Your task to perform on an android device: turn on the 12-hour format for clock Image 0: 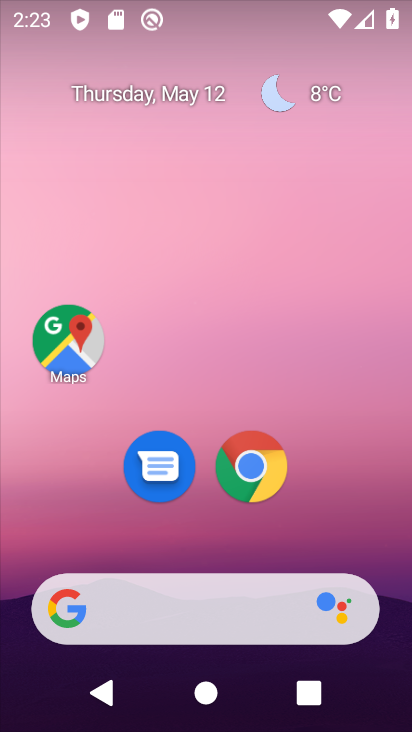
Step 0: drag from (354, 523) to (300, 149)
Your task to perform on an android device: turn on the 12-hour format for clock Image 1: 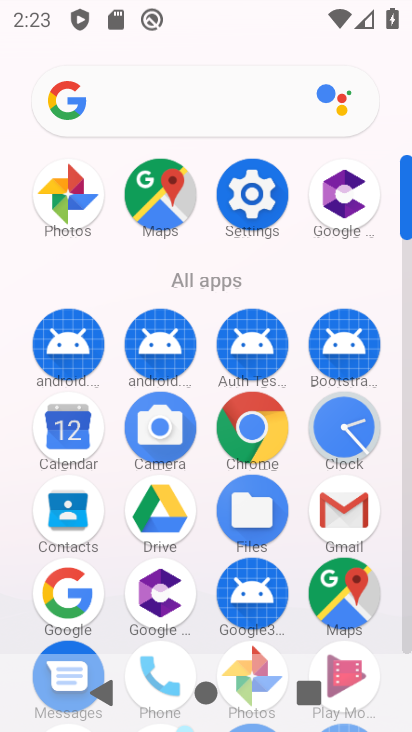
Step 1: click (338, 435)
Your task to perform on an android device: turn on the 12-hour format for clock Image 2: 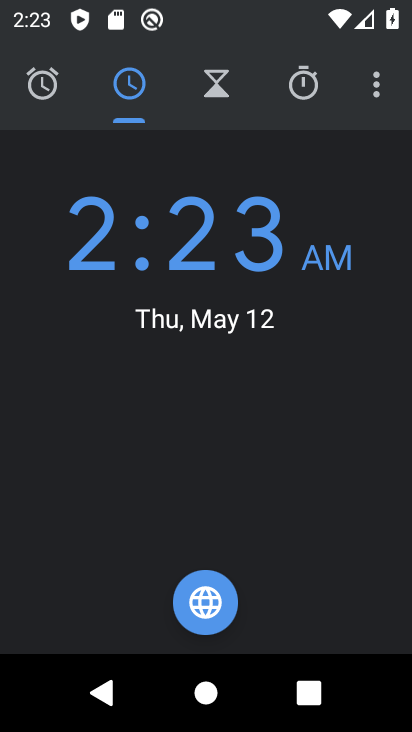
Step 2: click (378, 101)
Your task to perform on an android device: turn on the 12-hour format for clock Image 3: 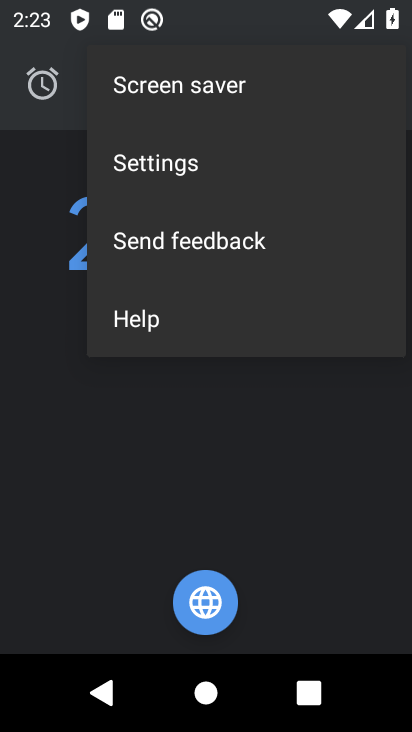
Step 3: click (193, 167)
Your task to perform on an android device: turn on the 12-hour format for clock Image 4: 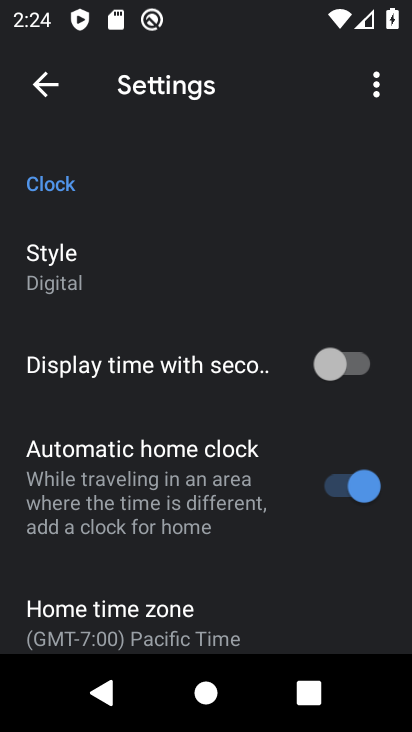
Step 4: drag from (187, 620) to (200, 122)
Your task to perform on an android device: turn on the 12-hour format for clock Image 5: 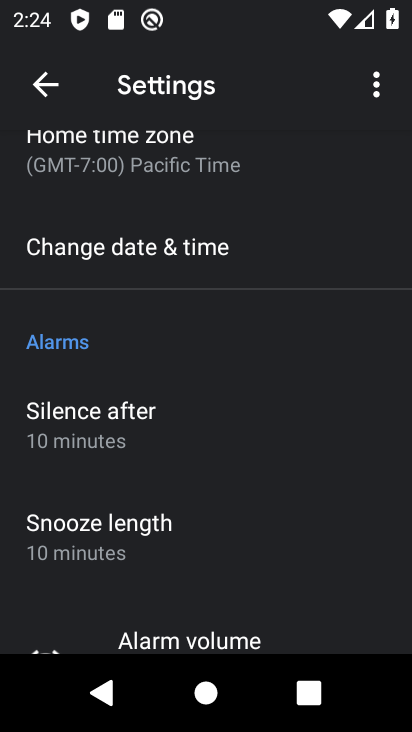
Step 5: click (177, 261)
Your task to perform on an android device: turn on the 12-hour format for clock Image 6: 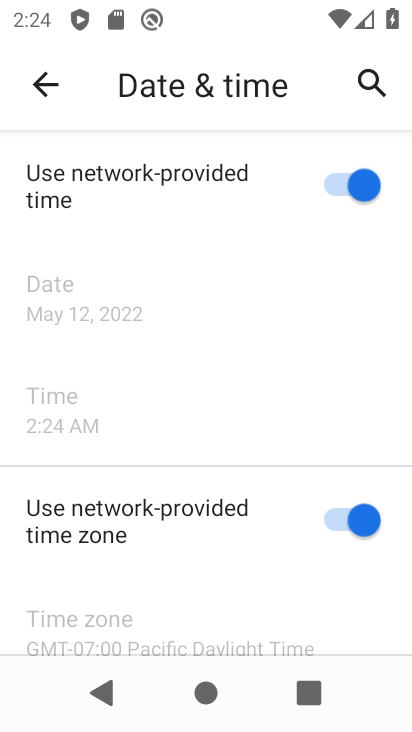
Step 6: task complete